Your task to perform on an android device: Open the phone app and click the voicemail tab. Image 0: 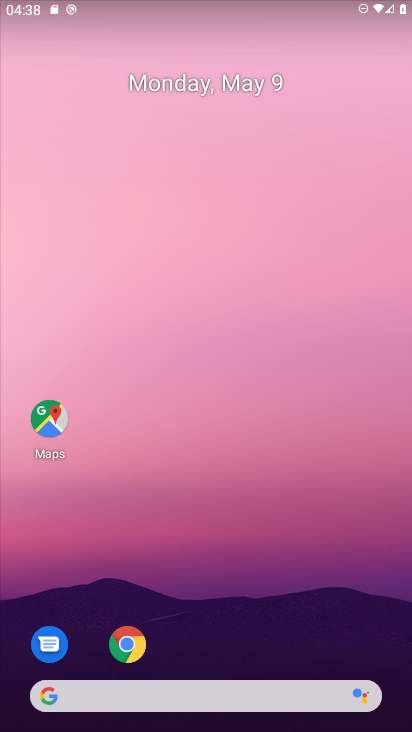
Step 0: drag from (299, 540) to (322, 224)
Your task to perform on an android device: Open the phone app and click the voicemail tab. Image 1: 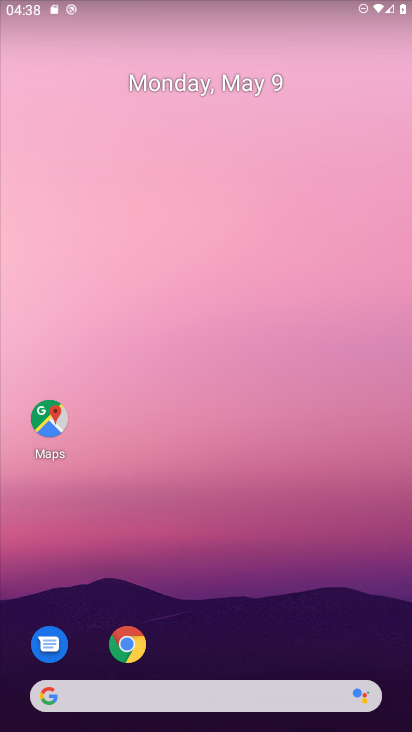
Step 1: drag from (295, 559) to (299, 128)
Your task to perform on an android device: Open the phone app and click the voicemail tab. Image 2: 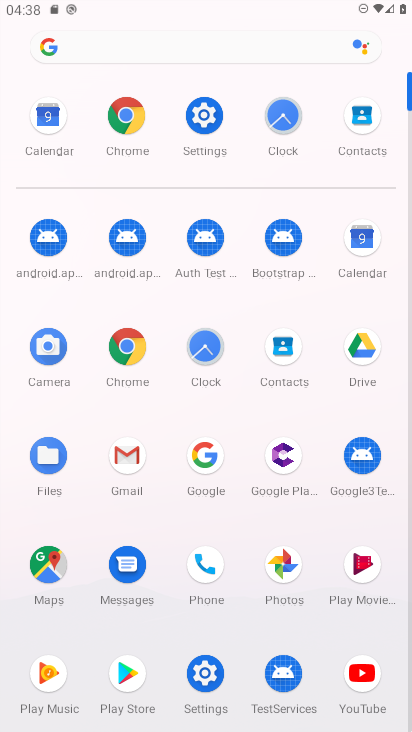
Step 2: click (211, 578)
Your task to perform on an android device: Open the phone app and click the voicemail tab. Image 3: 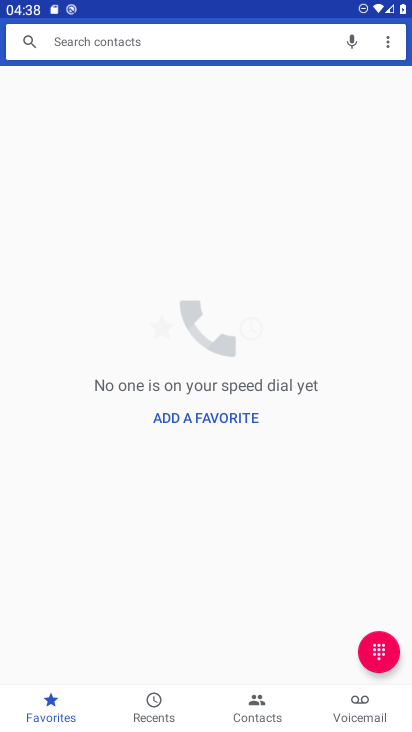
Step 3: click (373, 705)
Your task to perform on an android device: Open the phone app and click the voicemail tab. Image 4: 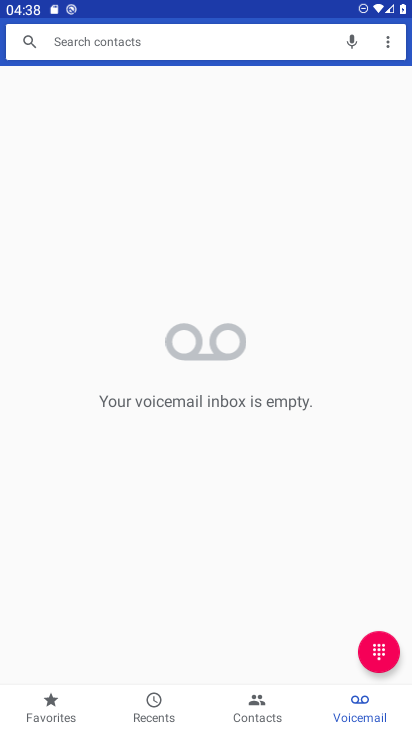
Step 4: task complete